Your task to perform on an android device: open device folders in google photos Image 0: 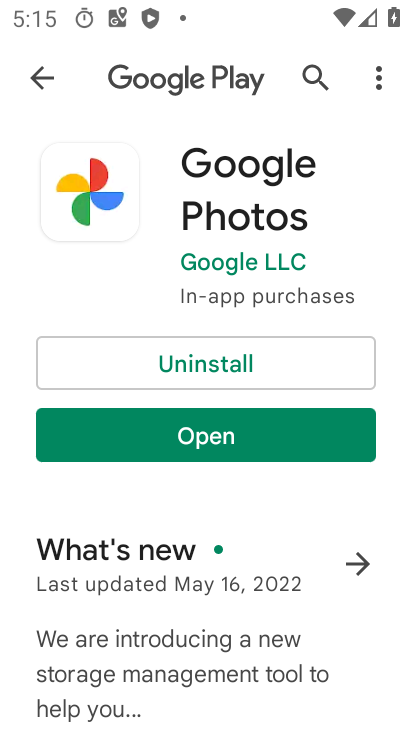
Step 0: press home button
Your task to perform on an android device: open device folders in google photos Image 1: 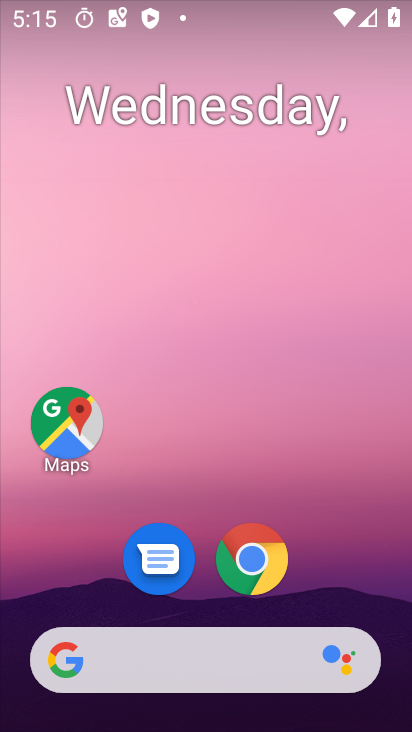
Step 1: drag from (343, 595) to (216, 70)
Your task to perform on an android device: open device folders in google photos Image 2: 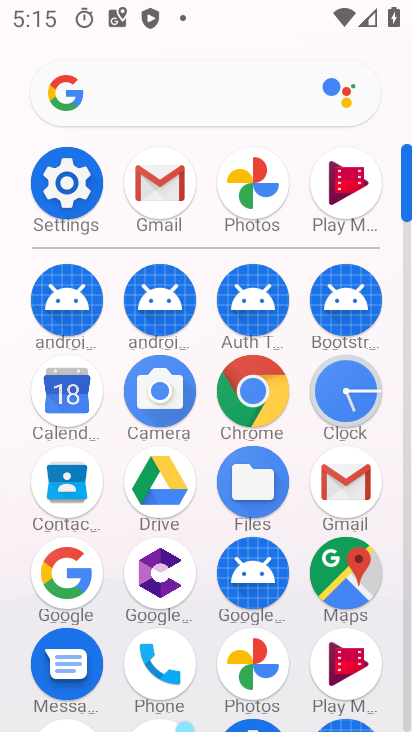
Step 2: click (262, 656)
Your task to perform on an android device: open device folders in google photos Image 3: 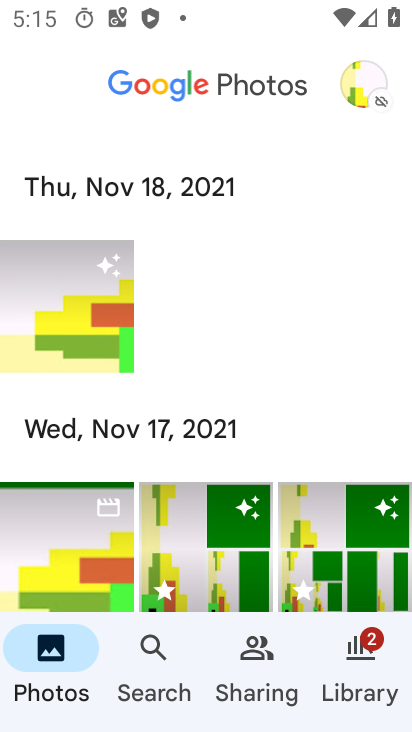
Step 3: click (370, 647)
Your task to perform on an android device: open device folders in google photos Image 4: 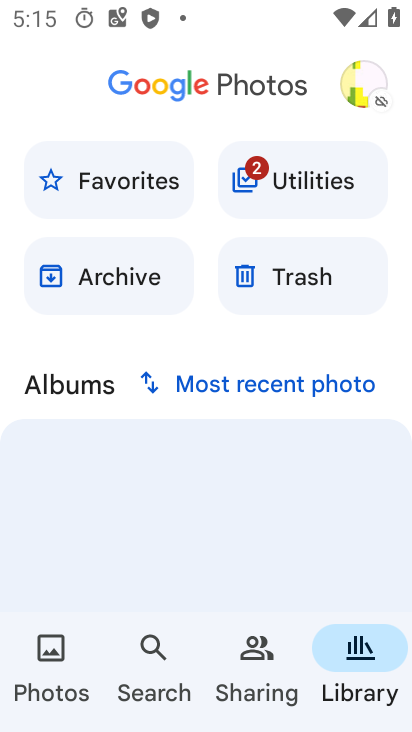
Step 4: click (176, 646)
Your task to perform on an android device: open device folders in google photos Image 5: 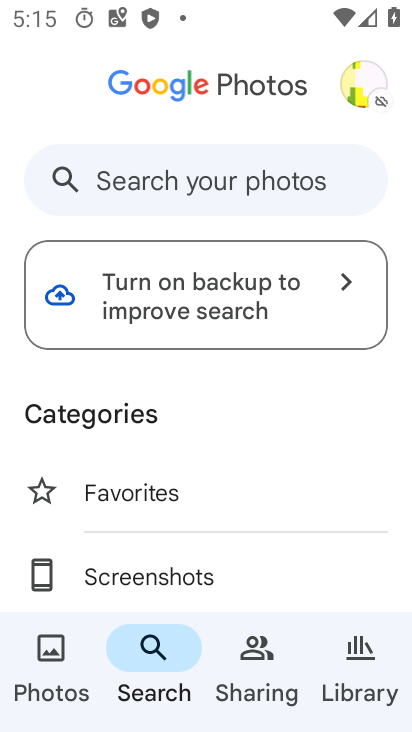
Step 5: click (146, 171)
Your task to perform on an android device: open device folders in google photos Image 6: 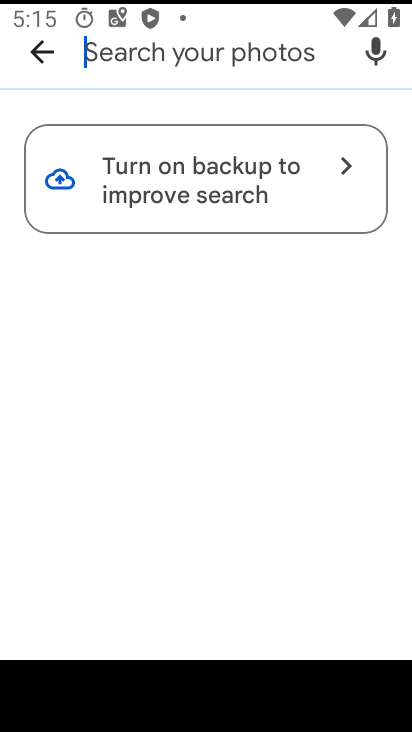
Step 6: type "devicde folder"
Your task to perform on an android device: open device folders in google photos Image 7: 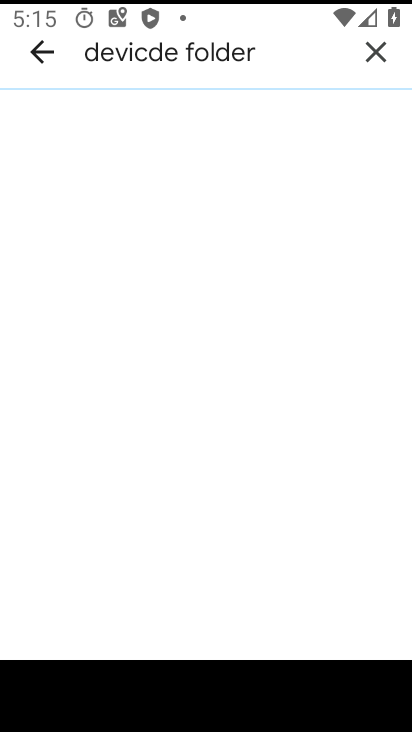
Step 7: click (362, 56)
Your task to perform on an android device: open device folders in google photos Image 8: 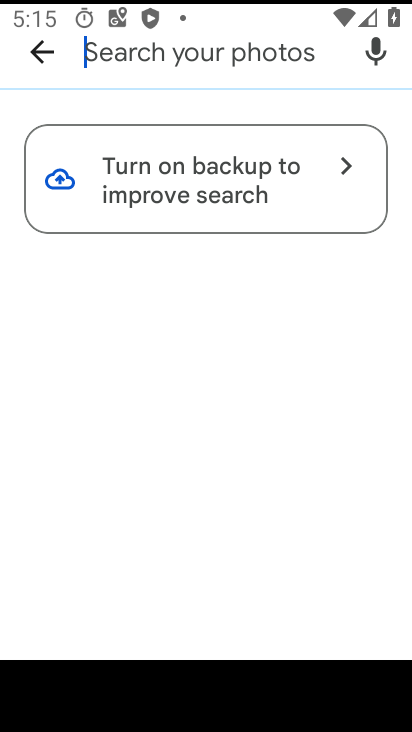
Step 8: click (41, 48)
Your task to perform on an android device: open device folders in google photos Image 9: 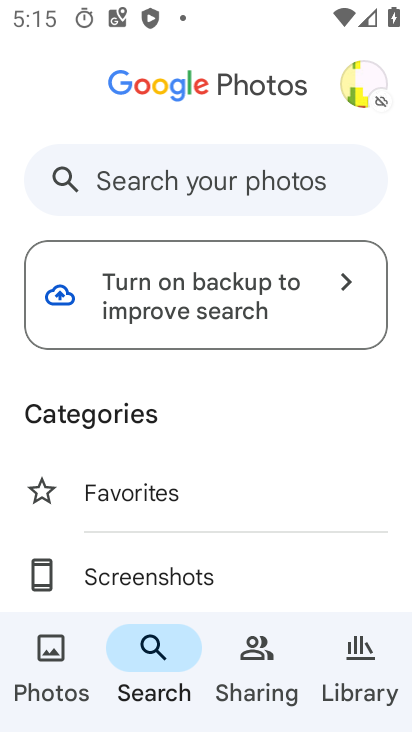
Step 9: click (365, 79)
Your task to perform on an android device: open device folders in google photos Image 10: 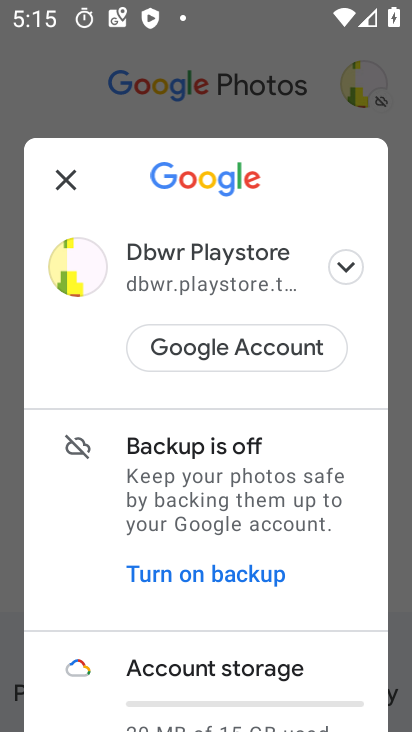
Step 10: task complete